Your task to perform on an android device: turn off javascript in the chrome app Image 0: 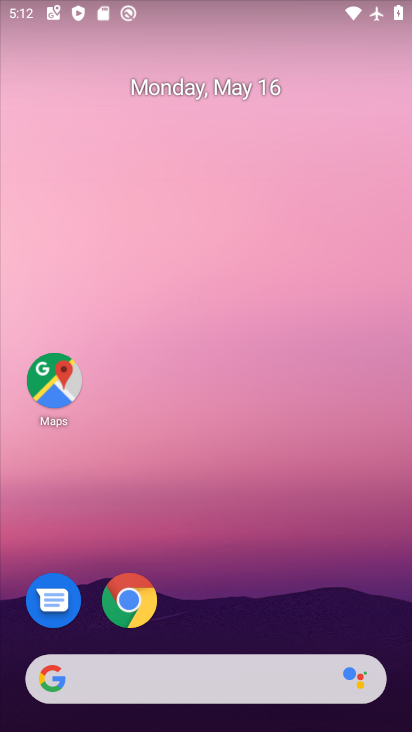
Step 0: click (118, 594)
Your task to perform on an android device: turn off javascript in the chrome app Image 1: 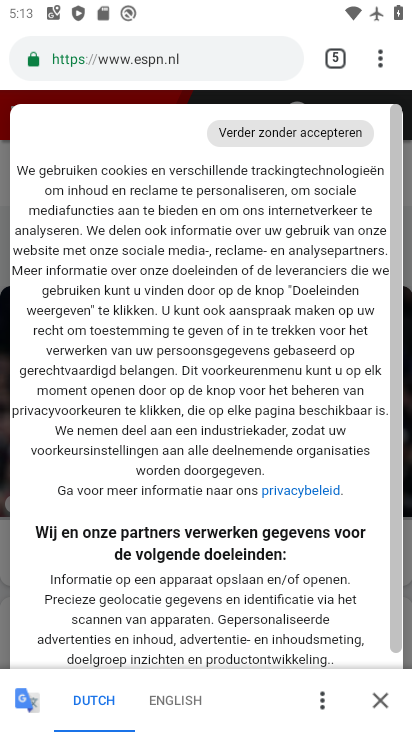
Step 1: click (385, 63)
Your task to perform on an android device: turn off javascript in the chrome app Image 2: 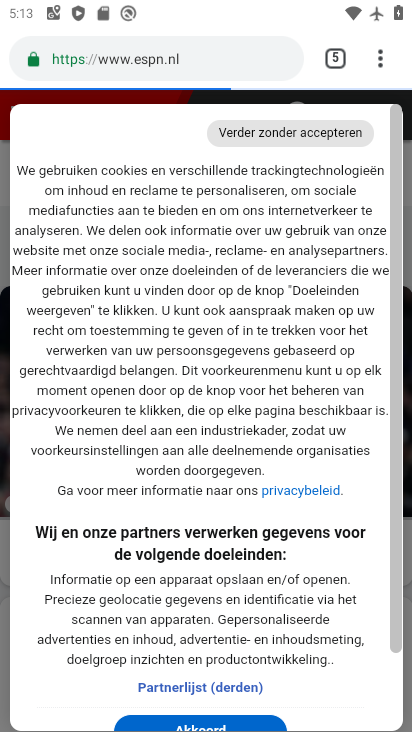
Step 2: drag from (379, 64) to (174, 624)
Your task to perform on an android device: turn off javascript in the chrome app Image 3: 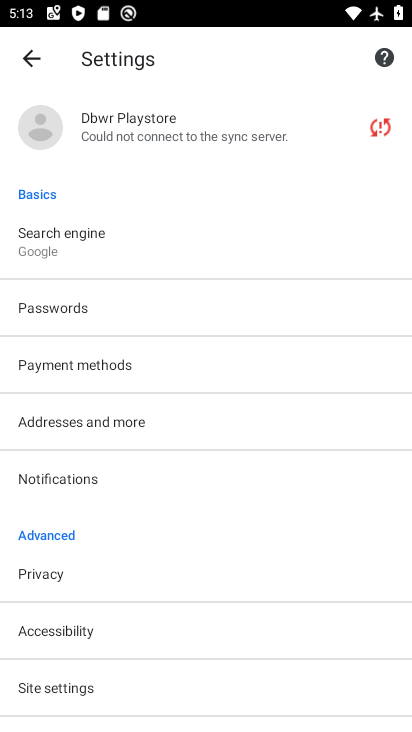
Step 3: click (61, 699)
Your task to perform on an android device: turn off javascript in the chrome app Image 4: 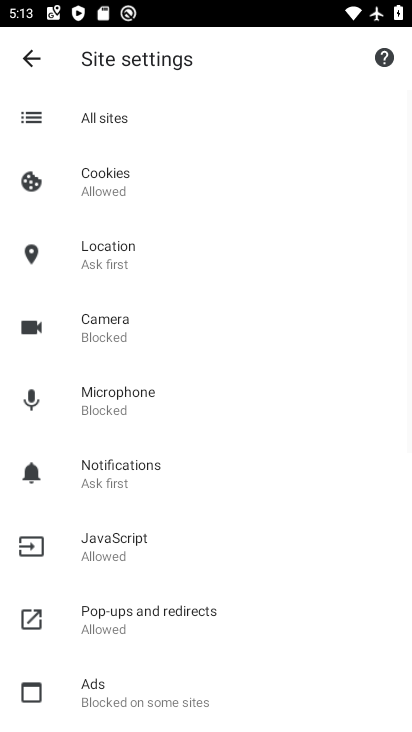
Step 4: click (115, 562)
Your task to perform on an android device: turn off javascript in the chrome app Image 5: 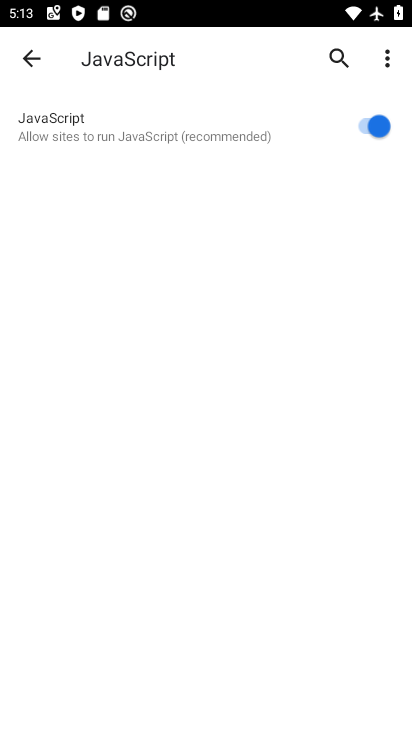
Step 5: click (372, 124)
Your task to perform on an android device: turn off javascript in the chrome app Image 6: 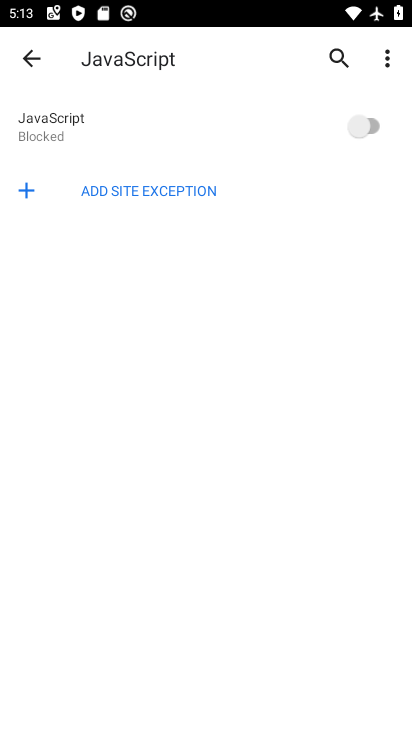
Step 6: task complete